Your task to perform on an android device: Open wifi settings Image 0: 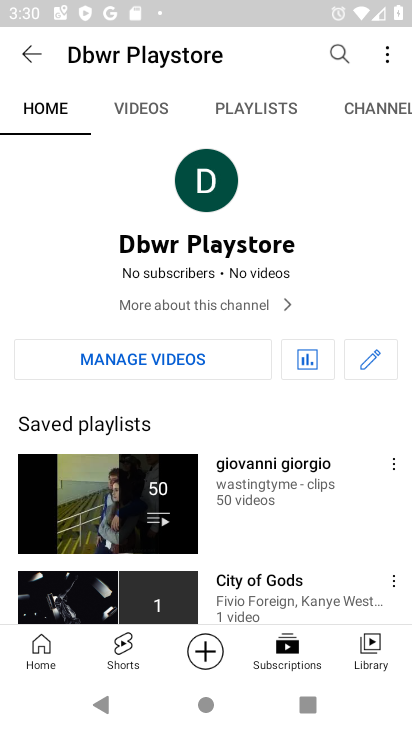
Step 0: press home button
Your task to perform on an android device: Open wifi settings Image 1: 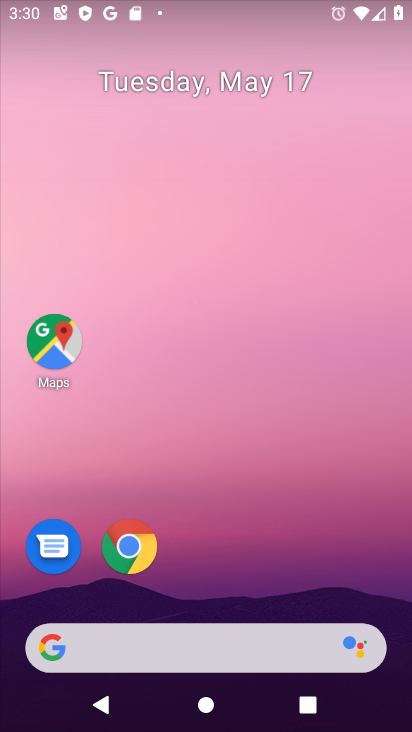
Step 1: drag from (379, 552) to (336, 306)
Your task to perform on an android device: Open wifi settings Image 2: 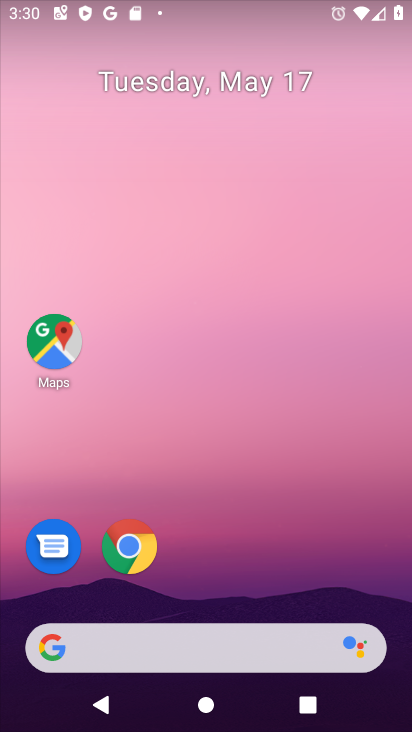
Step 2: drag from (400, 699) to (310, 216)
Your task to perform on an android device: Open wifi settings Image 3: 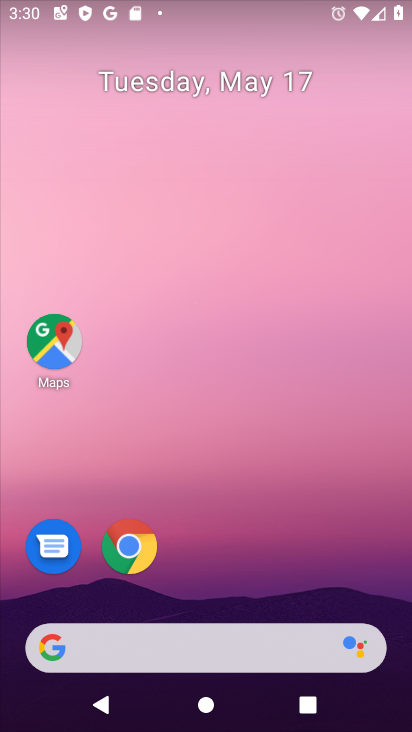
Step 3: drag from (394, 666) to (369, 344)
Your task to perform on an android device: Open wifi settings Image 4: 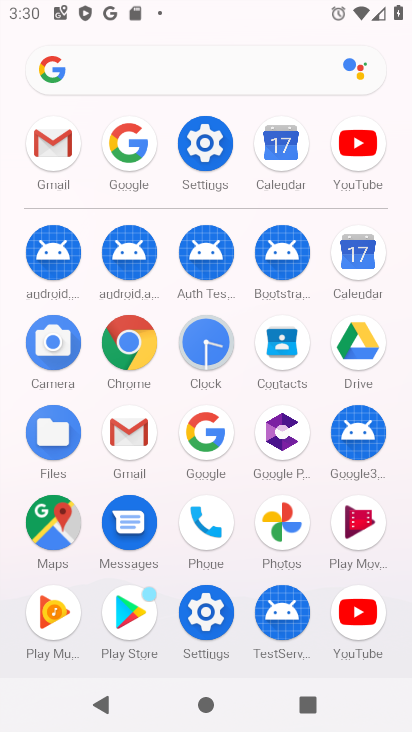
Step 4: click (195, 138)
Your task to perform on an android device: Open wifi settings Image 5: 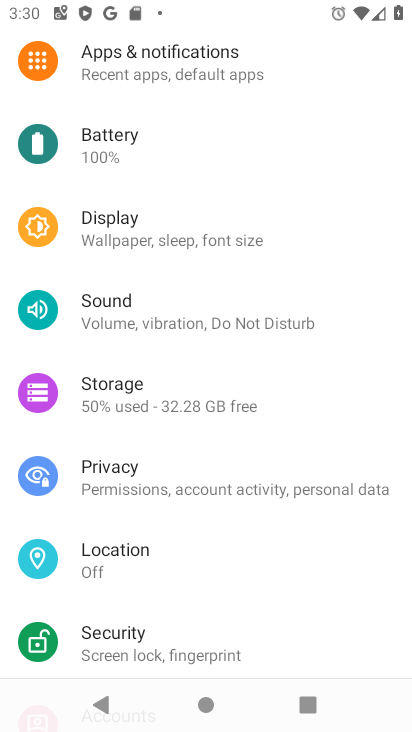
Step 5: drag from (312, 68) to (332, 477)
Your task to perform on an android device: Open wifi settings Image 6: 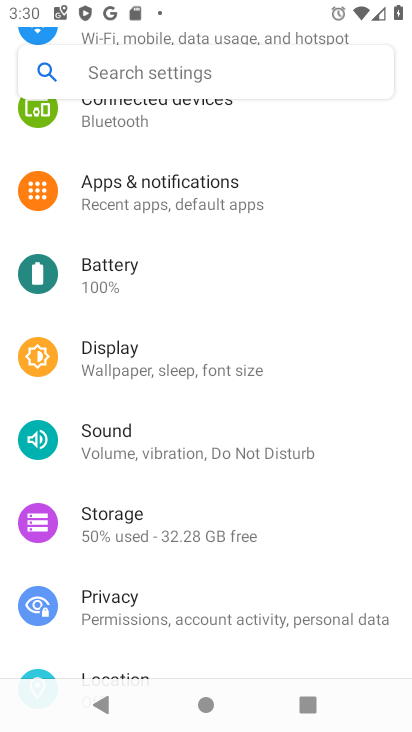
Step 6: drag from (304, 172) to (332, 560)
Your task to perform on an android device: Open wifi settings Image 7: 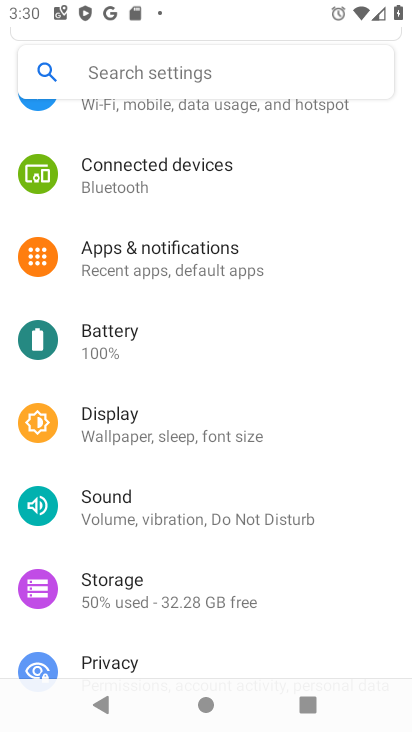
Step 7: click (134, 103)
Your task to perform on an android device: Open wifi settings Image 8: 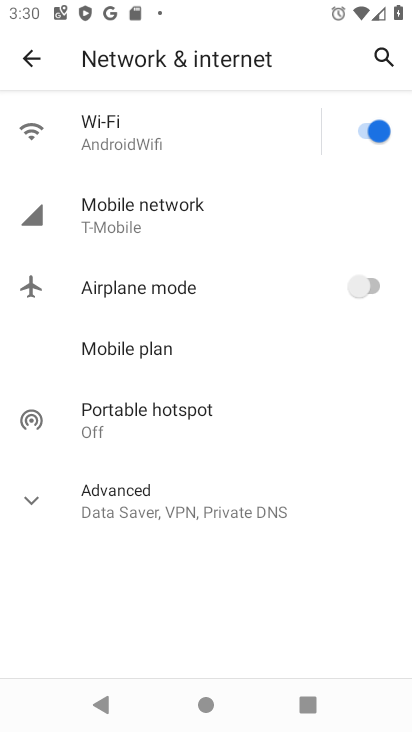
Step 8: click (130, 122)
Your task to perform on an android device: Open wifi settings Image 9: 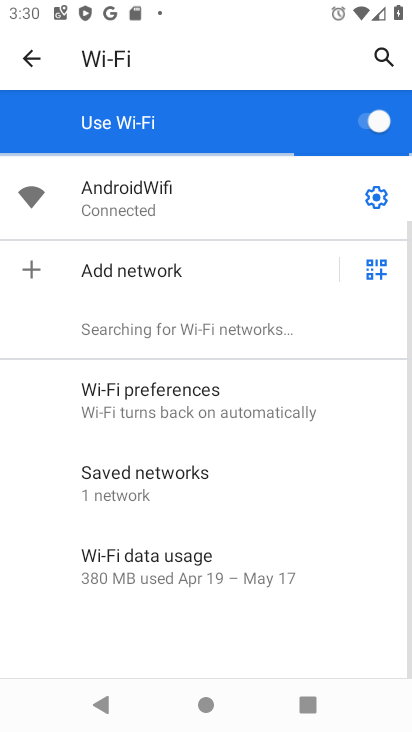
Step 9: click (375, 196)
Your task to perform on an android device: Open wifi settings Image 10: 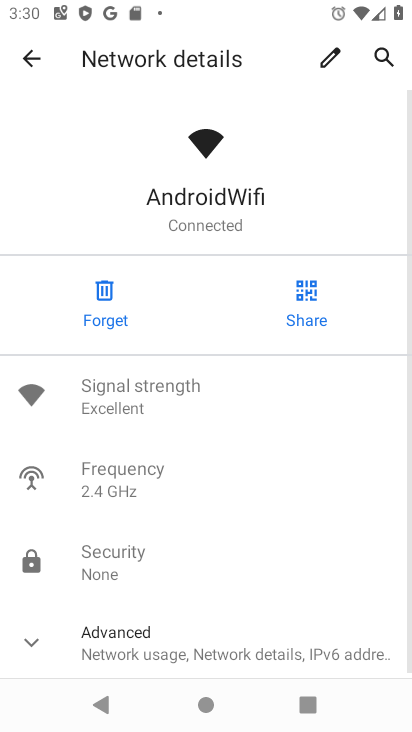
Step 10: task complete